Your task to perform on an android device: What's the latest news in space science? Image 0: 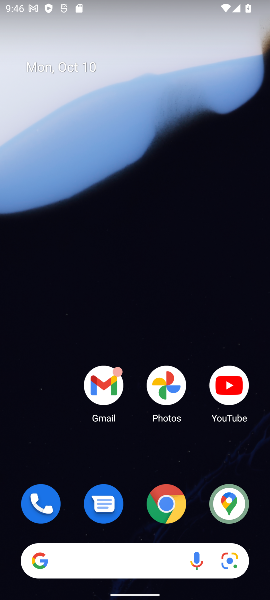
Step 0: click (162, 497)
Your task to perform on an android device: What's the latest news in space science? Image 1: 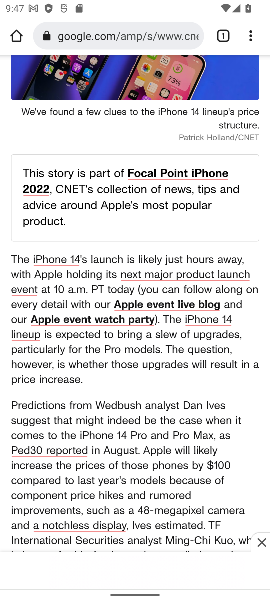
Step 1: click (108, 25)
Your task to perform on an android device: What's the latest news in space science? Image 2: 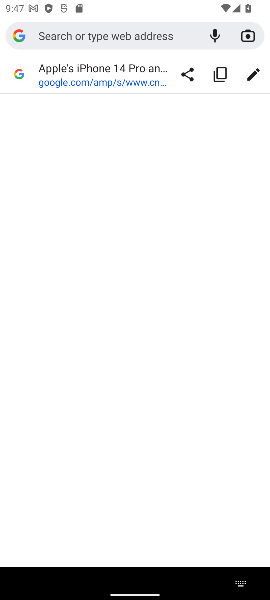
Step 2: type " latest news in space science?"
Your task to perform on an android device: What's the latest news in space science? Image 3: 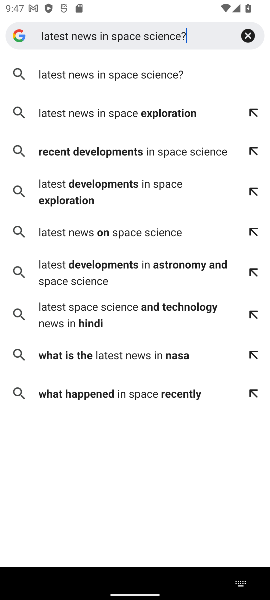
Step 3: click (55, 68)
Your task to perform on an android device: What's the latest news in space science? Image 4: 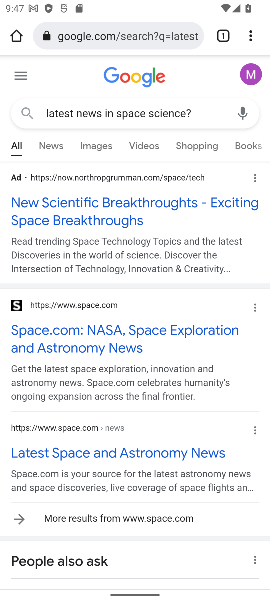
Step 4: click (66, 209)
Your task to perform on an android device: What's the latest news in space science? Image 5: 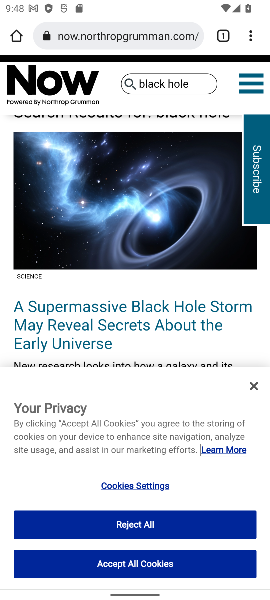
Step 5: click (253, 380)
Your task to perform on an android device: What's the latest news in space science? Image 6: 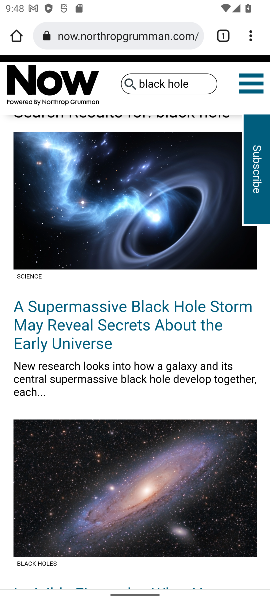
Step 6: click (62, 317)
Your task to perform on an android device: What's the latest news in space science? Image 7: 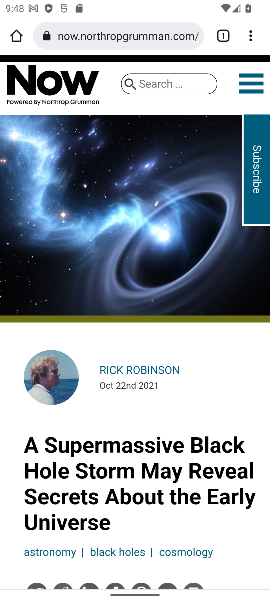
Step 7: task complete